Your task to perform on an android device: Open Google Chrome and click the shortcut for Amazon.com Image 0: 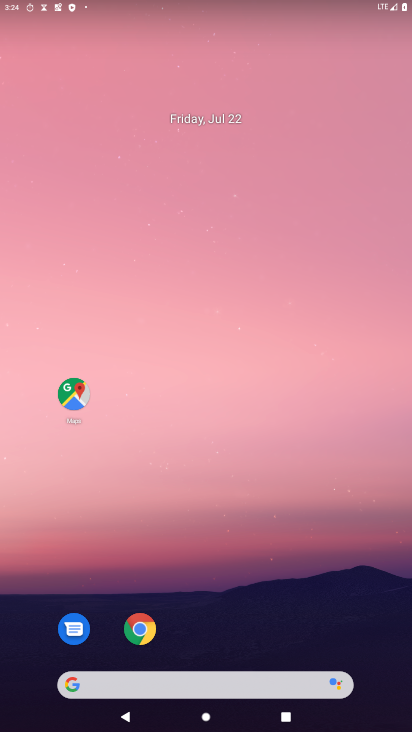
Step 0: drag from (193, 683) to (214, 17)
Your task to perform on an android device: Open Google Chrome and click the shortcut for Amazon.com Image 1: 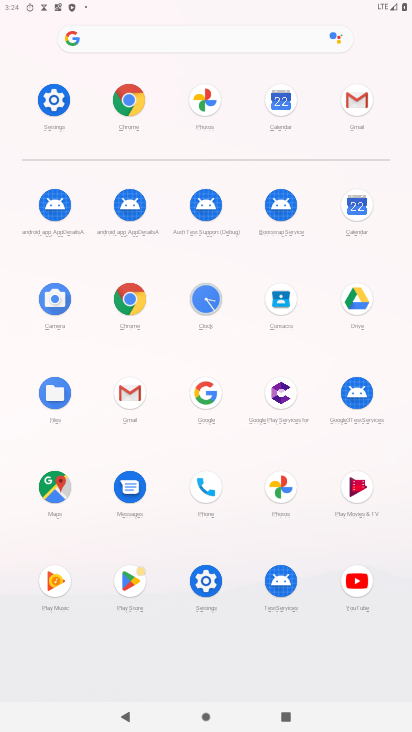
Step 1: click (132, 306)
Your task to perform on an android device: Open Google Chrome and click the shortcut for Amazon.com Image 2: 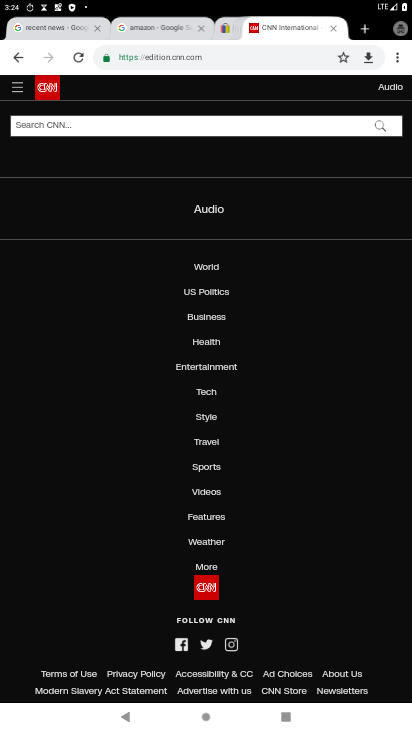
Step 2: drag from (403, 55) to (300, 59)
Your task to perform on an android device: Open Google Chrome and click the shortcut for Amazon.com Image 3: 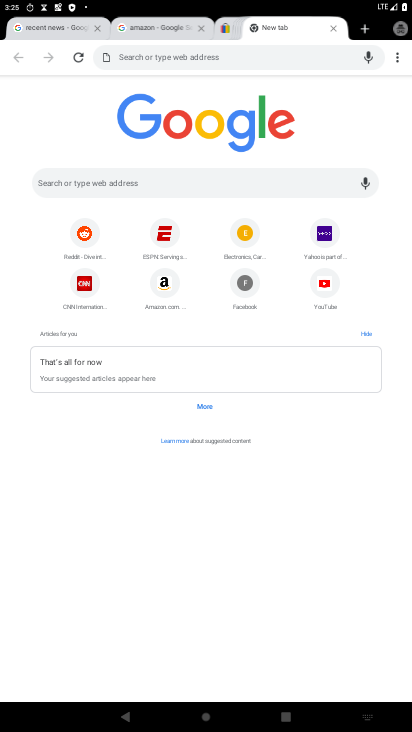
Step 3: click (162, 278)
Your task to perform on an android device: Open Google Chrome and click the shortcut for Amazon.com Image 4: 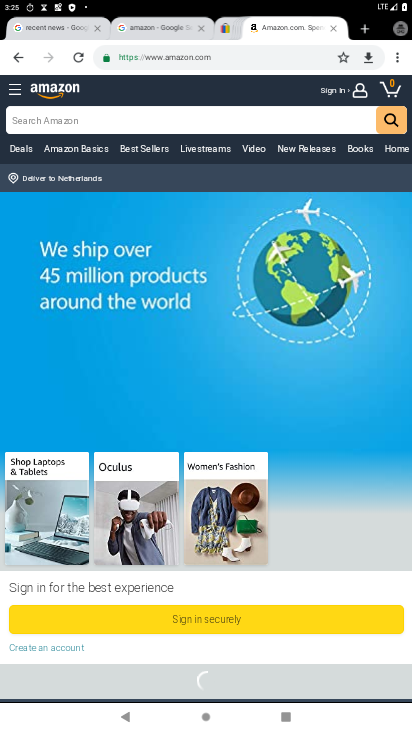
Step 4: task complete